Your task to perform on an android device: Open network settings Image 0: 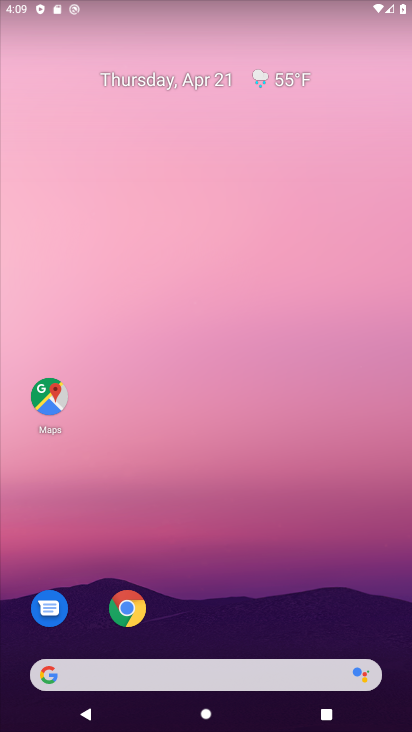
Step 0: drag from (164, 618) to (323, 114)
Your task to perform on an android device: Open network settings Image 1: 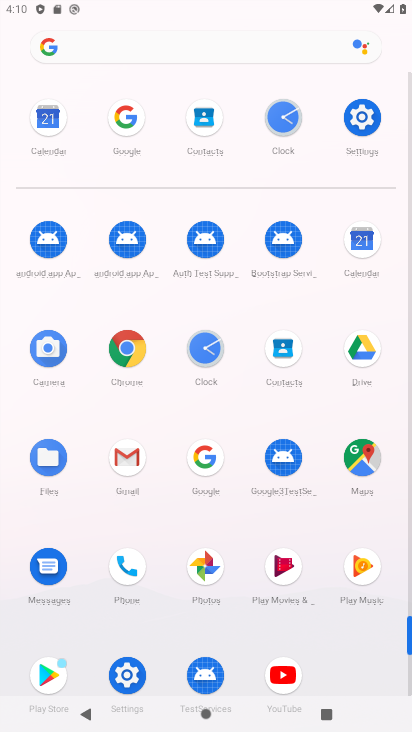
Step 1: click (361, 134)
Your task to perform on an android device: Open network settings Image 2: 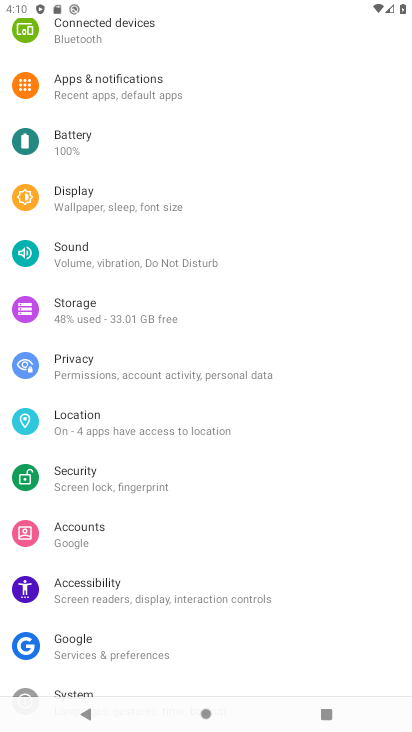
Step 2: drag from (221, 93) to (178, 683)
Your task to perform on an android device: Open network settings Image 3: 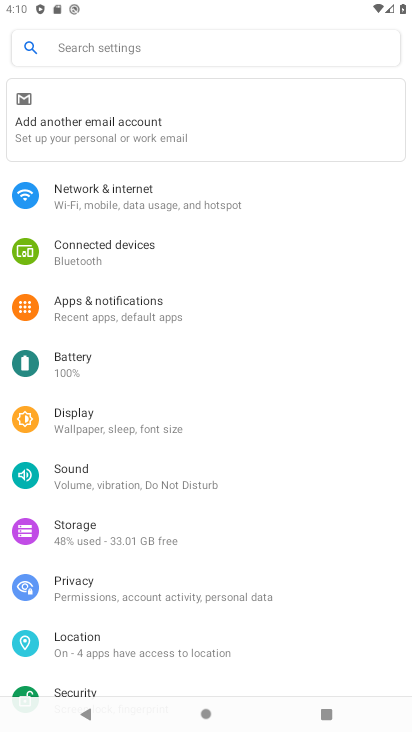
Step 3: click (155, 203)
Your task to perform on an android device: Open network settings Image 4: 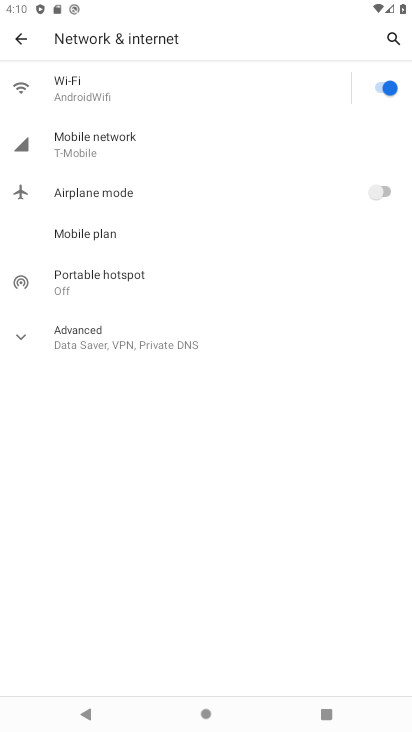
Step 4: task complete